Your task to perform on an android device: toggle priority inbox in the gmail app Image 0: 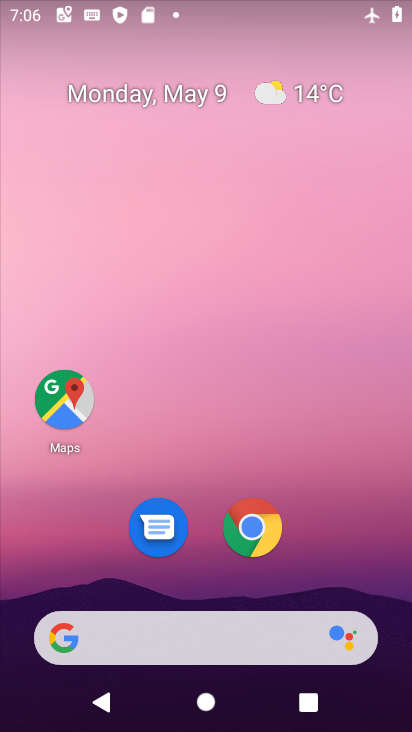
Step 0: drag from (321, 585) to (214, 0)
Your task to perform on an android device: toggle priority inbox in the gmail app Image 1: 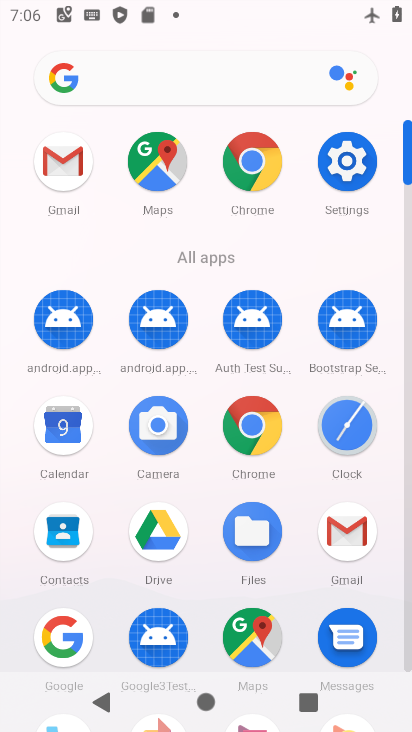
Step 1: click (67, 153)
Your task to perform on an android device: toggle priority inbox in the gmail app Image 2: 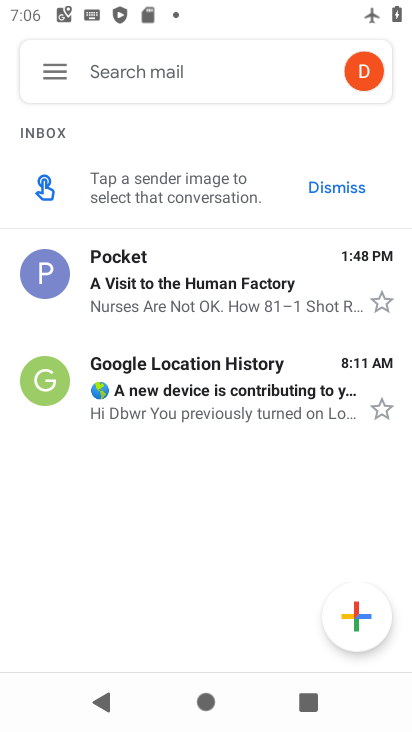
Step 2: click (60, 68)
Your task to perform on an android device: toggle priority inbox in the gmail app Image 3: 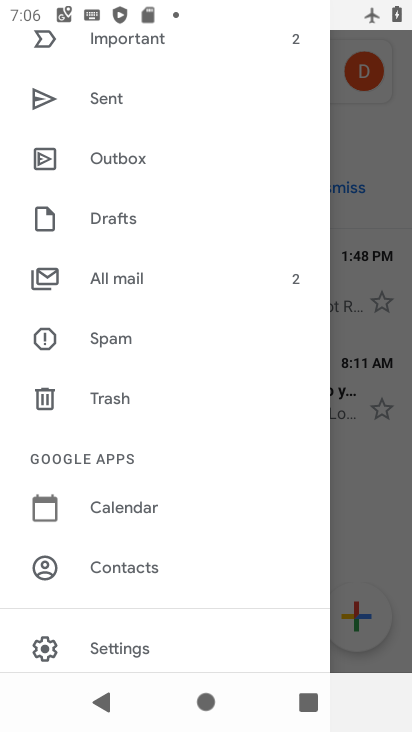
Step 3: drag from (214, 518) to (216, 403)
Your task to perform on an android device: toggle priority inbox in the gmail app Image 4: 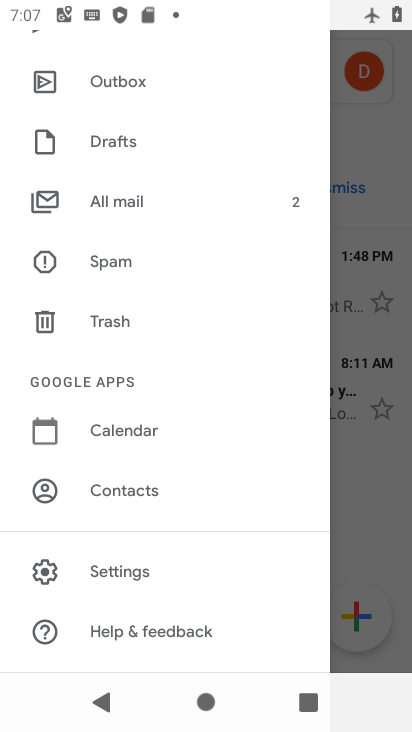
Step 4: click (141, 565)
Your task to perform on an android device: toggle priority inbox in the gmail app Image 5: 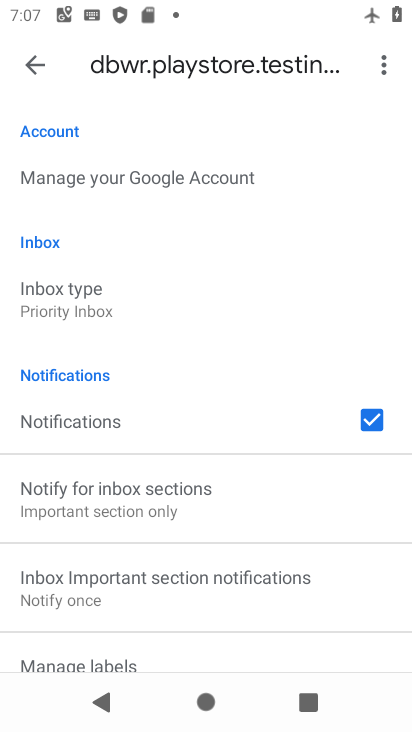
Step 5: click (85, 314)
Your task to perform on an android device: toggle priority inbox in the gmail app Image 6: 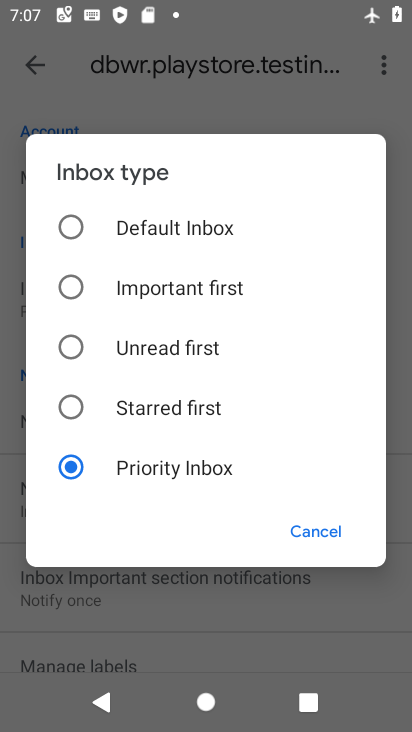
Step 6: click (64, 272)
Your task to perform on an android device: toggle priority inbox in the gmail app Image 7: 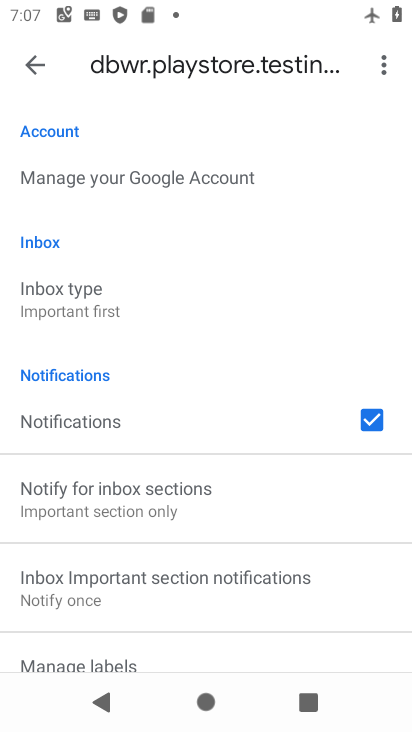
Step 7: task complete